Your task to perform on an android device: create a new album in the google photos Image 0: 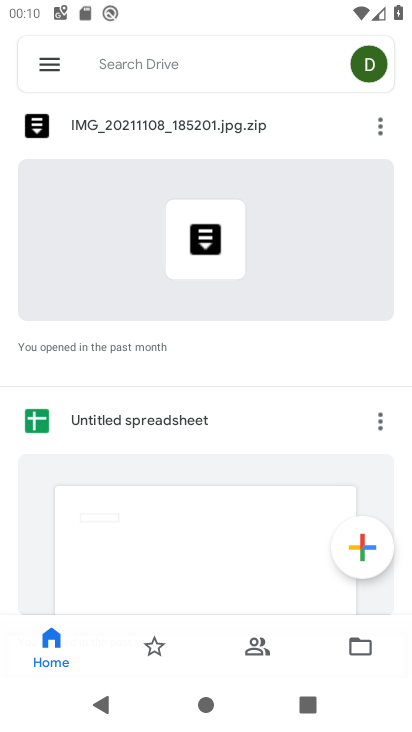
Step 0: press home button
Your task to perform on an android device: create a new album in the google photos Image 1: 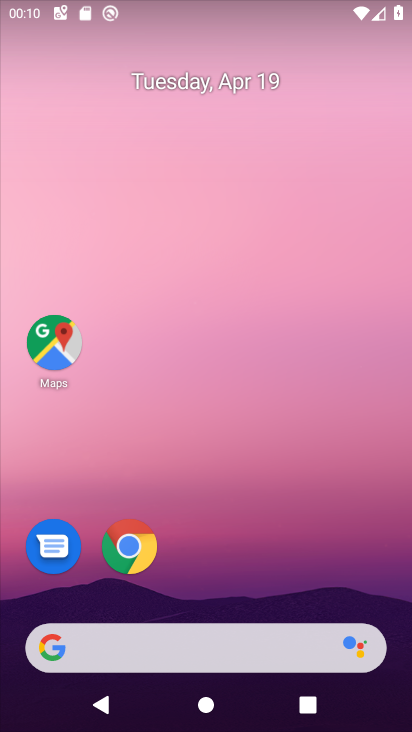
Step 1: drag from (228, 597) to (281, 4)
Your task to perform on an android device: create a new album in the google photos Image 2: 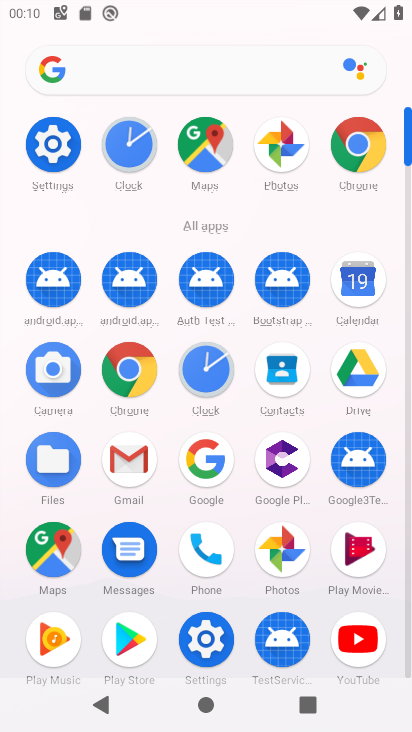
Step 2: click (279, 540)
Your task to perform on an android device: create a new album in the google photos Image 3: 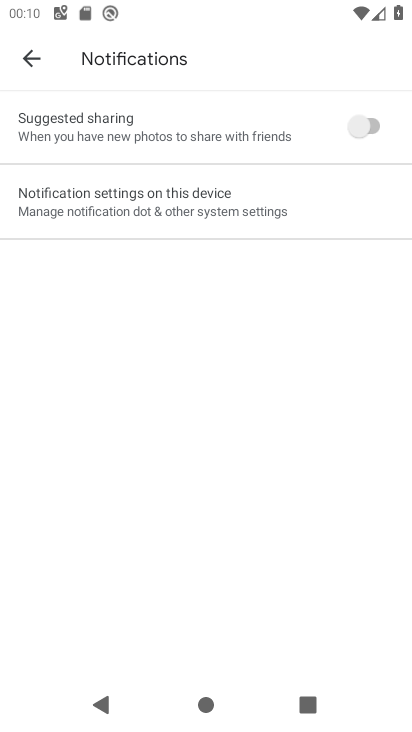
Step 3: click (30, 55)
Your task to perform on an android device: create a new album in the google photos Image 4: 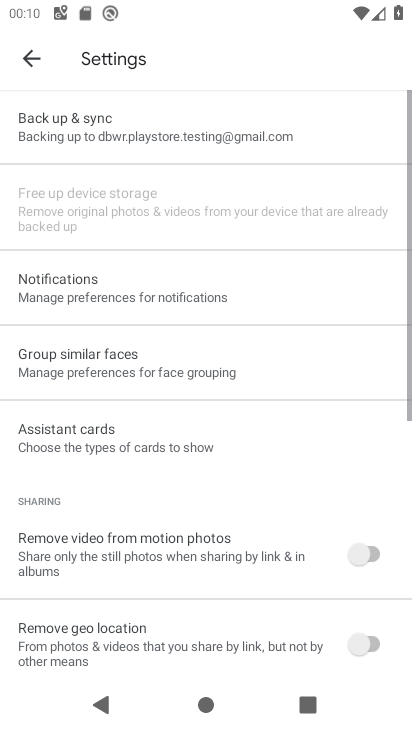
Step 4: click (30, 55)
Your task to perform on an android device: create a new album in the google photos Image 5: 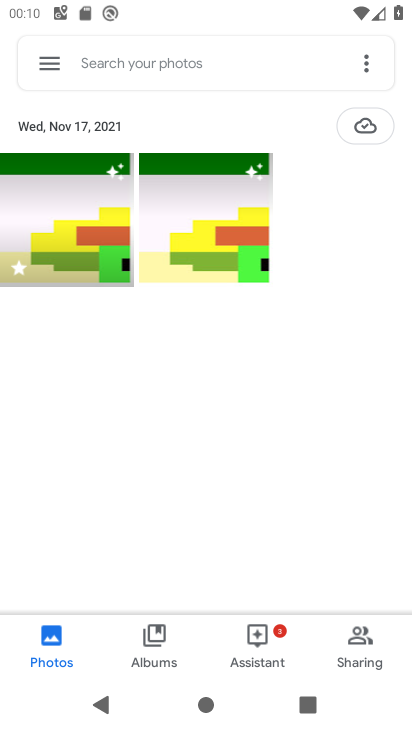
Step 5: click (154, 635)
Your task to perform on an android device: create a new album in the google photos Image 6: 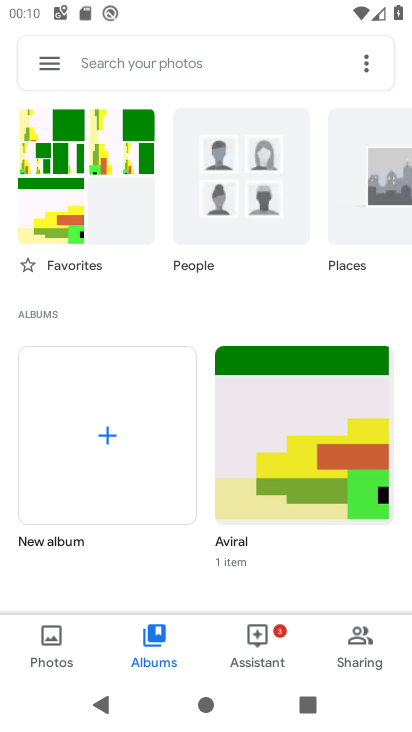
Step 6: click (368, 55)
Your task to perform on an android device: create a new album in the google photos Image 7: 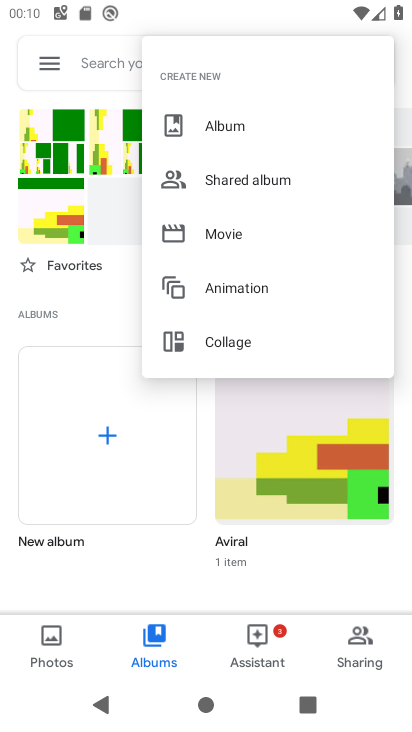
Step 7: click (215, 123)
Your task to perform on an android device: create a new album in the google photos Image 8: 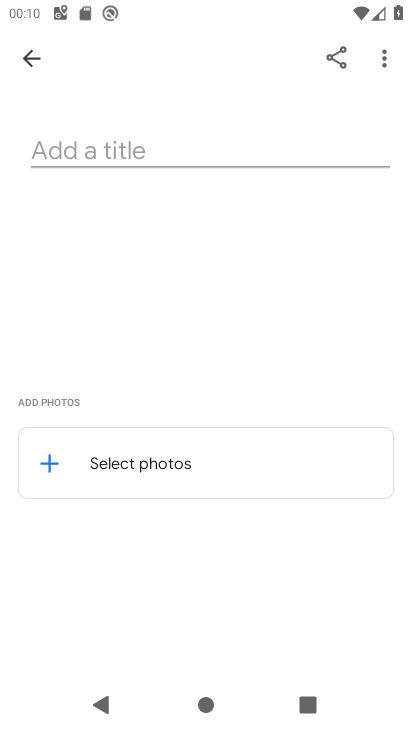
Step 8: click (163, 471)
Your task to perform on an android device: create a new album in the google photos Image 9: 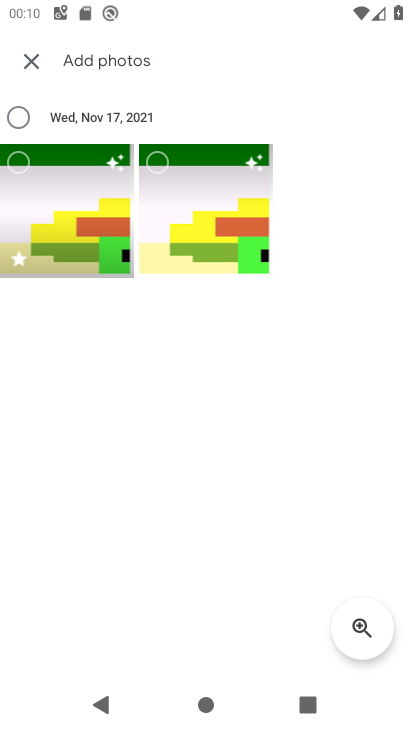
Step 9: click (14, 119)
Your task to perform on an android device: create a new album in the google photos Image 10: 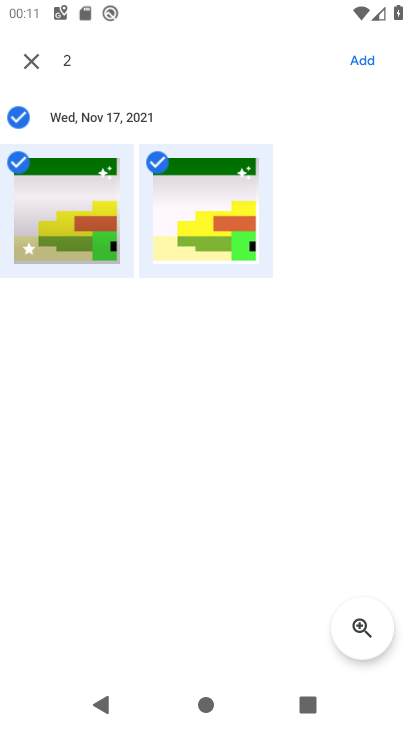
Step 10: click (363, 53)
Your task to perform on an android device: create a new album in the google photos Image 11: 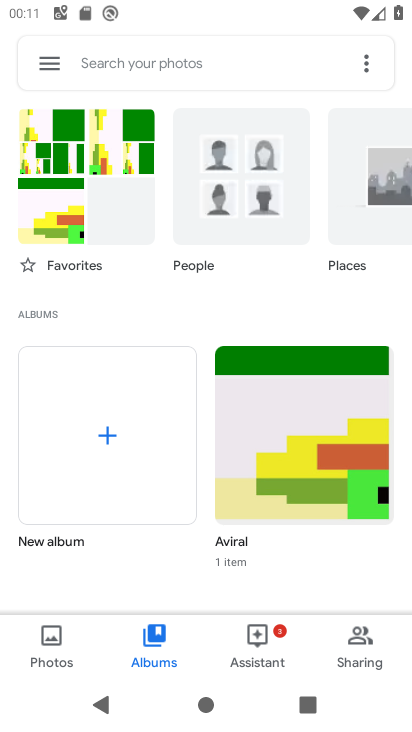
Step 11: click (362, 66)
Your task to perform on an android device: create a new album in the google photos Image 12: 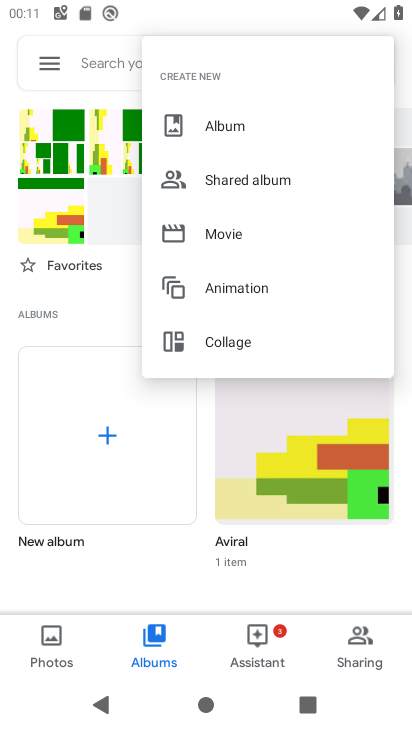
Step 12: click (193, 118)
Your task to perform on an android device: create a new album in the google photos Image 13: 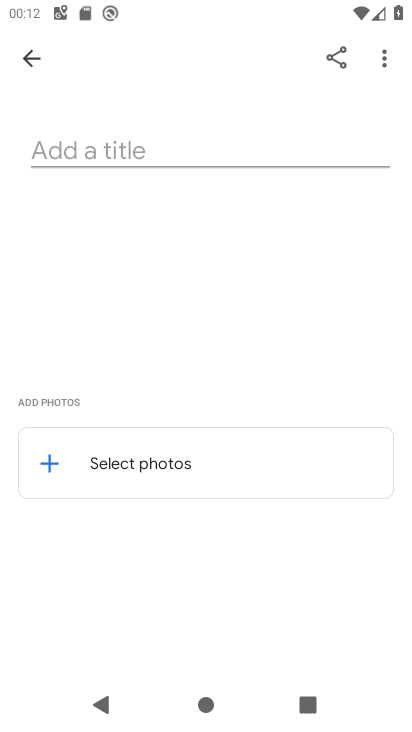
Step 13: click (84, 469)
Your task to perform on an android device: create a new album in the google photos Image 14: 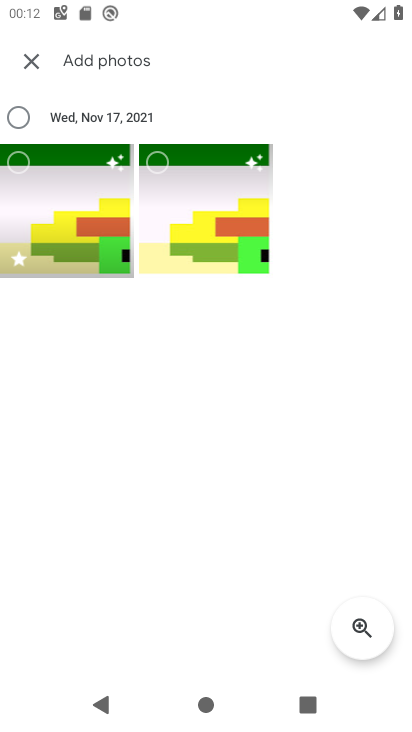
Step 14: click (22, 110)
Your task to perform on an android device: create a new album in the google photos Image 15: 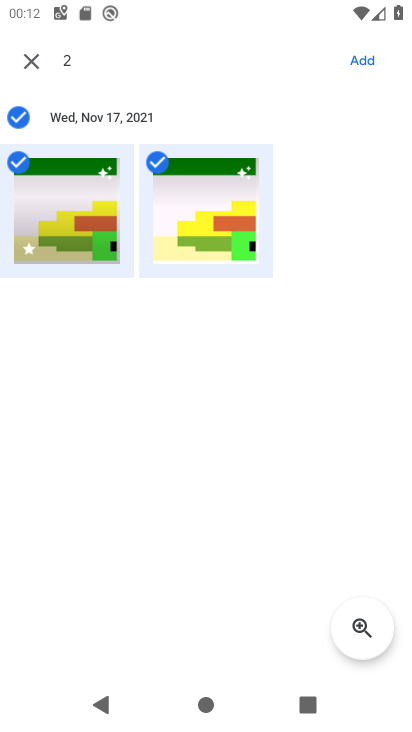
Step 15: click (354, 54)
Your task to perform on an android device: create a new album in the google photos Image 16: 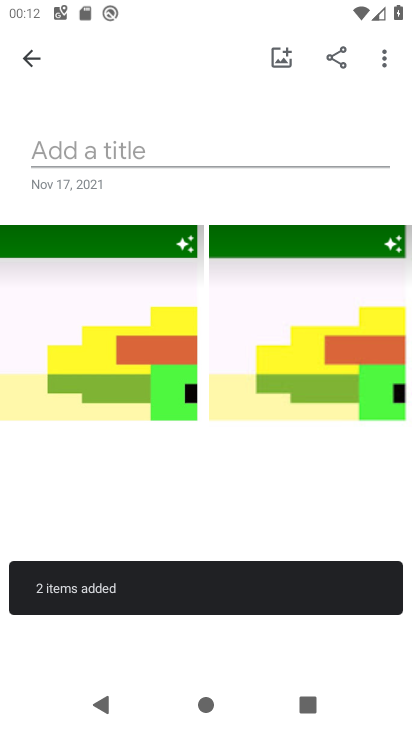
Step 16: click (160, 135)
Your task to perform on an android device: create a new album in the google photos Image 17: 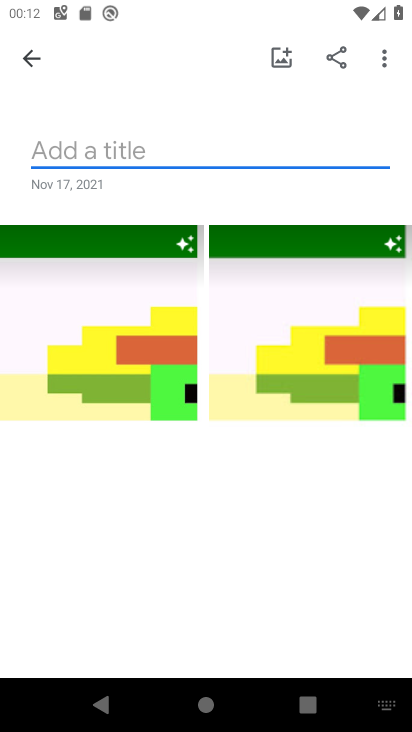
Step 17: type "jhghgd"
Your task to perform on an android device: create a new album in the google photos Image 18: 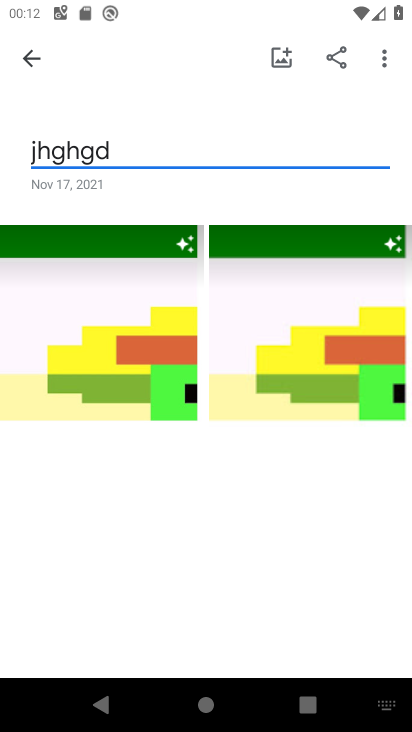
Step 18: click (283, 572)
Your task to perform on an android device: create a new album in the google photos Image 19: 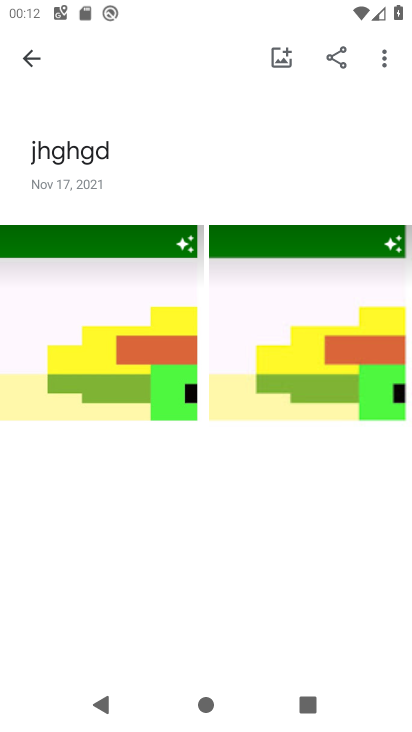
Step 19: task complete